Your task to perform on an android device: toggle data saver in the chrome app Image 0: 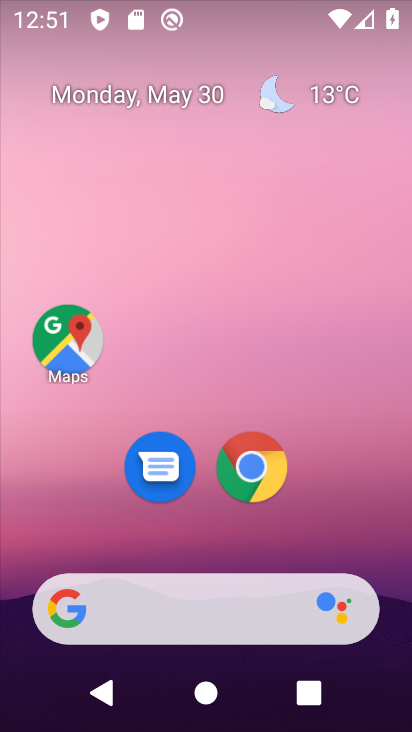
Step 0: click (266, 486)
Your task to perform on an android device: toggle data saver in the chrome app Image 1: 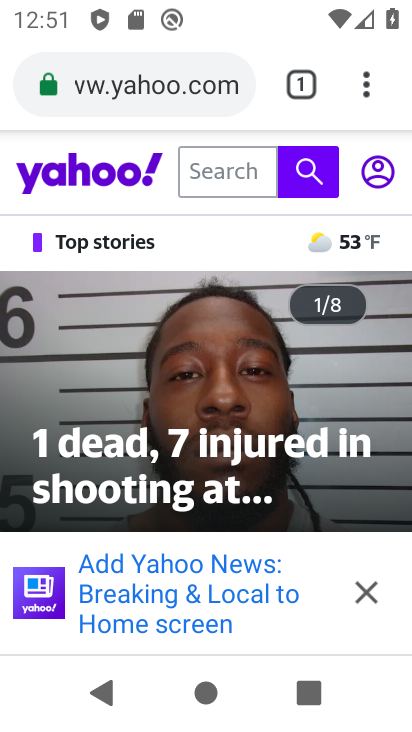
Step 1: click (368, 88)
Your task to perform on an android device: toggle data saver in the chrome app Image 2: 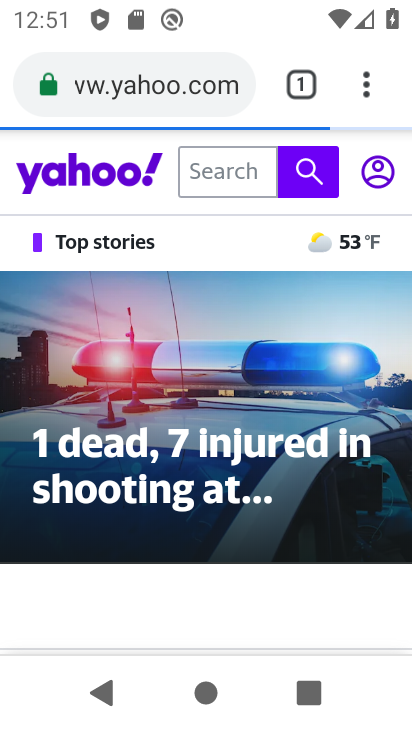
Step 2: click (365, 87)
Your task to perform on an android device: toggle data saver in the chrome app Image 3: 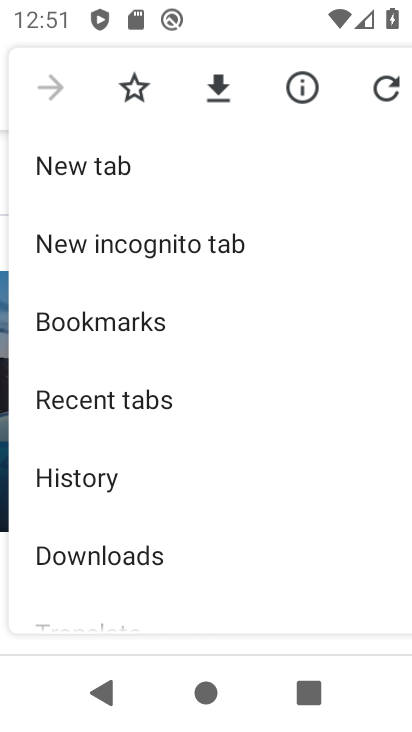
Step 3: drag from (156, 561) to (164, 142)
Your task to perform on an android device: toggle data saver in the chrome app Image 4: 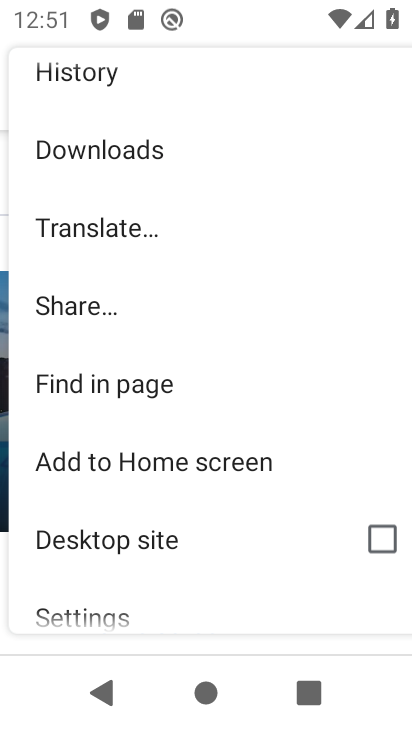
Step 4: click (108, 613)
Your task to perform on an android device: toggle data saver in the chrome app Image 5: 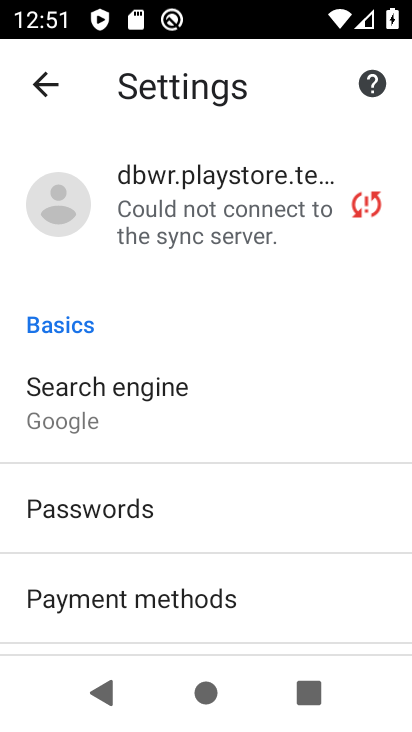
Step 5: drag from (255, 601) to (248, 264)
Your task to perform on an android device: toggle data saver in the chrome app Image 6: 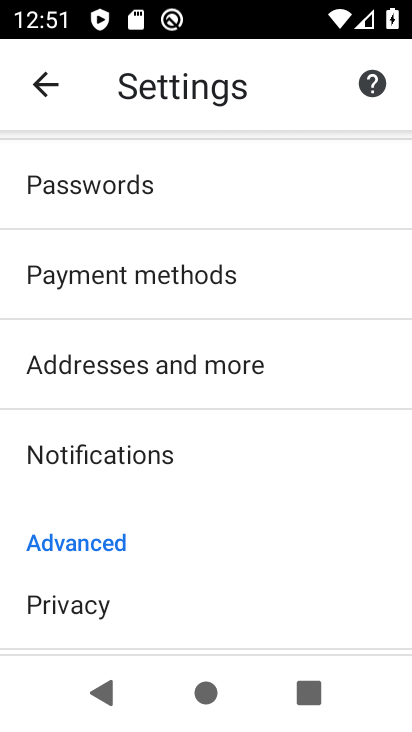
Step 6: drag from (192, 565) to (196, 213)
Your task to perform on an android device: toggle data saver in the chrome app Image 7: 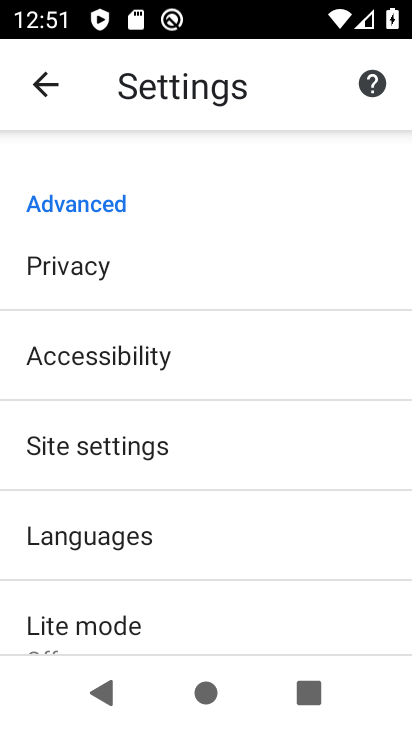
Step 7: click (128, 617)
Your task to perform on an android device: toggle data saver in the chrome app Image 8: 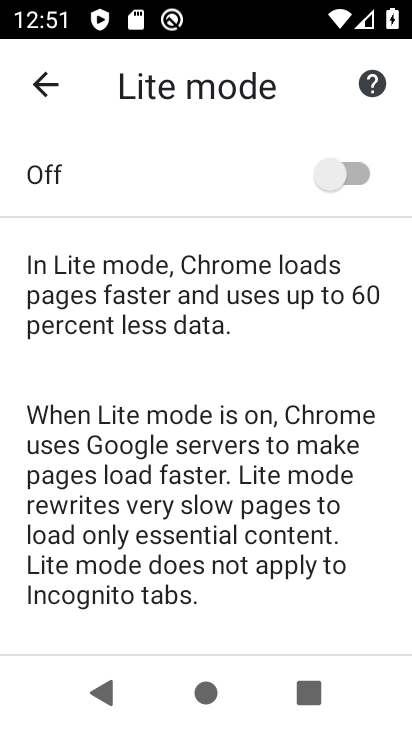
Step 8: click (353, 174)
Your task to perform on an android device: toggle data saver in the chrome app Image 9: 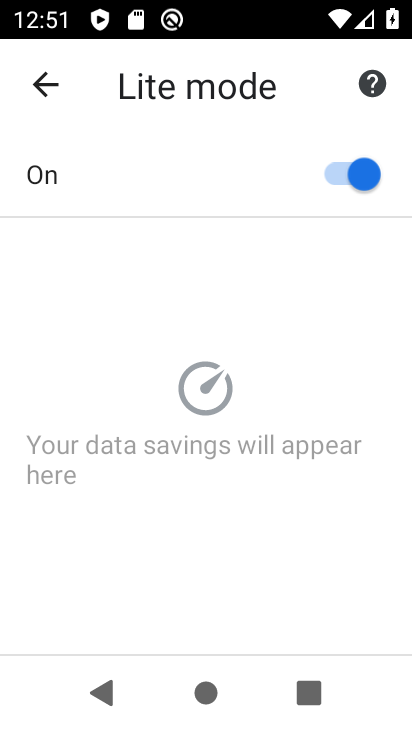
Step 9: task complete